Your task to perform on an android device: Search for vegetarian restaurants on Maps Image 0: 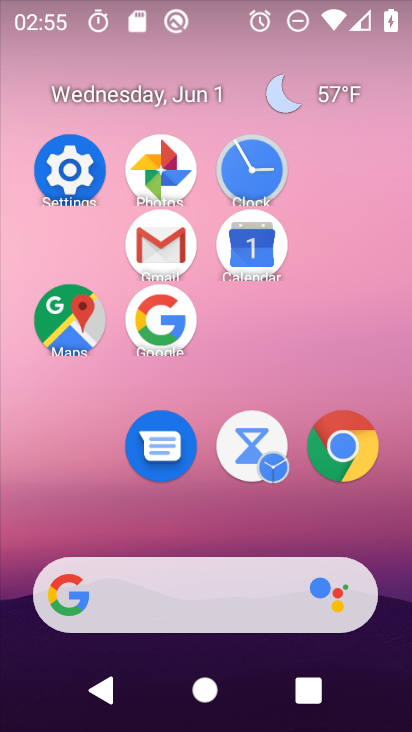
Step 0: click (84, 318)
Your task to perform on an android device: Search for vegetarian restaurants on Maps Image 1: 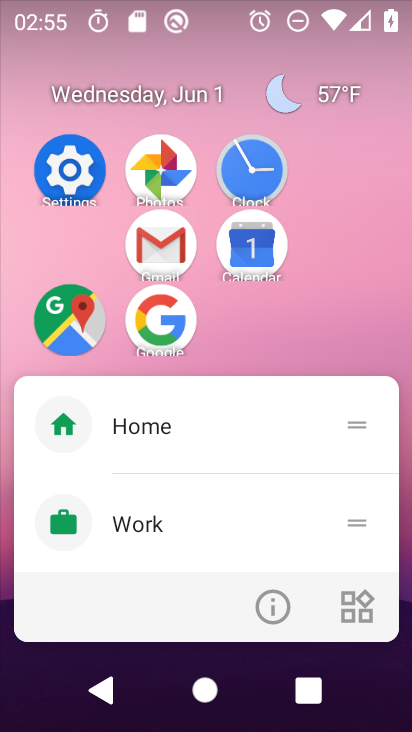
Step 1: click (80, 316)
Your task to perform on an android device: Search for vegetarian restaurants on Maps Image 2: 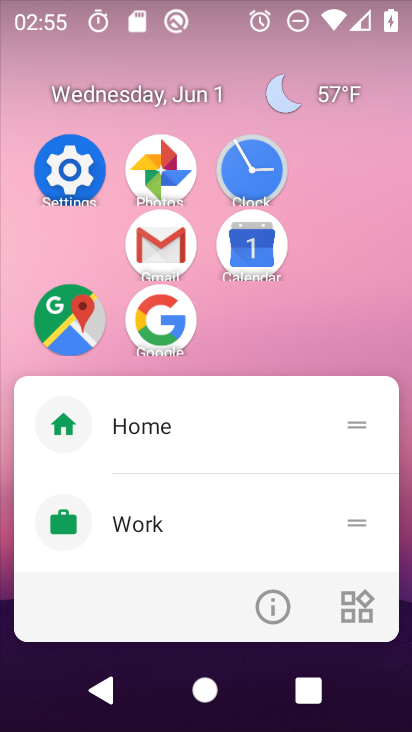
Step 2: click (81, 316)
Your task to perform on an android device: Search for vegetarian restaurants on Maps Image 3: 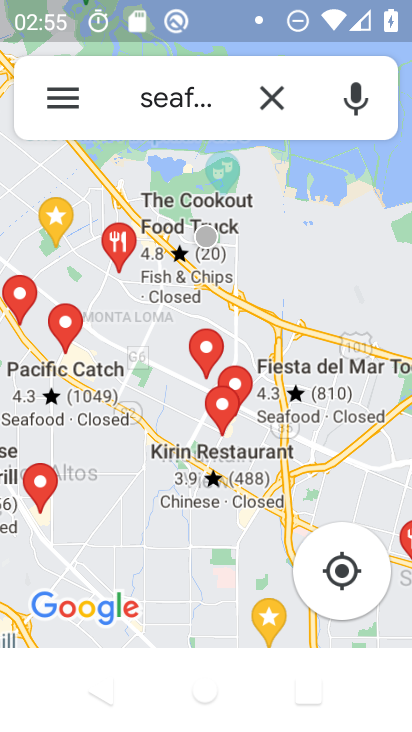
Step 3: click (256, 114)
Your task to perform on an android device: Search for vegetarian restaurants on Maps Image 4: 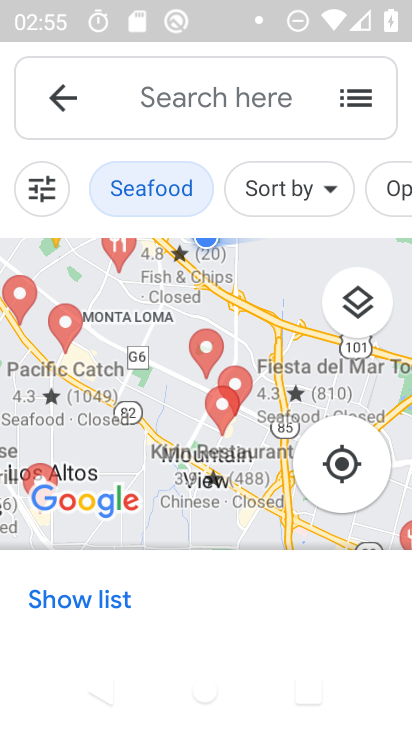
Step 4: click (302, 86)
Your task to perform on an android device: Search for vegetarian restaurants on Maps Image 5: 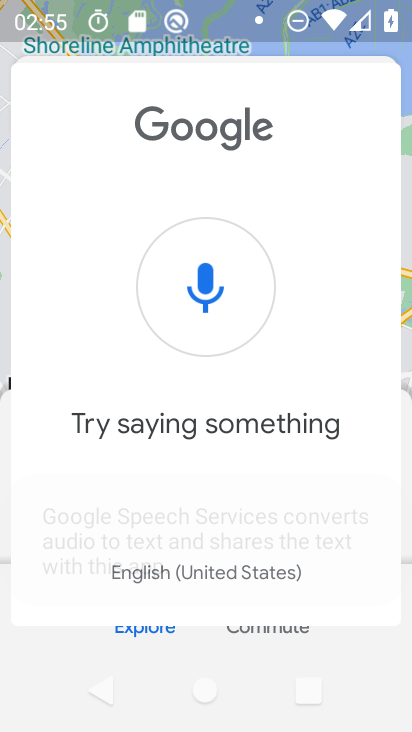
Step 5: click (164, 80)
Your task to perform on an android device: Search for vegetarian restaurants on Maps Image 6: 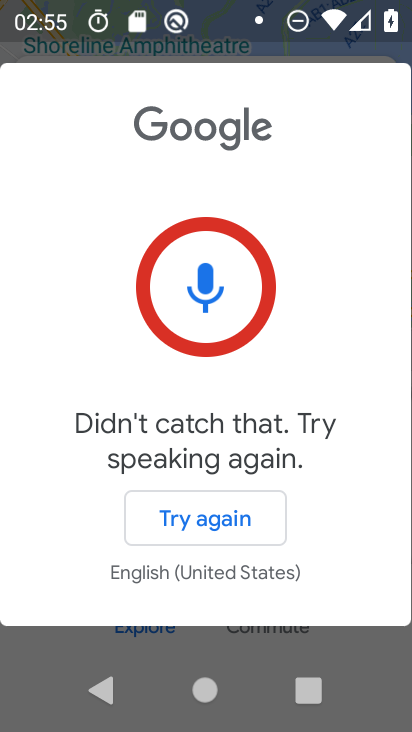
Step 6: press back button
Your task to perform on an android device: Search for vegetarian restaurants on Maps Image 7: 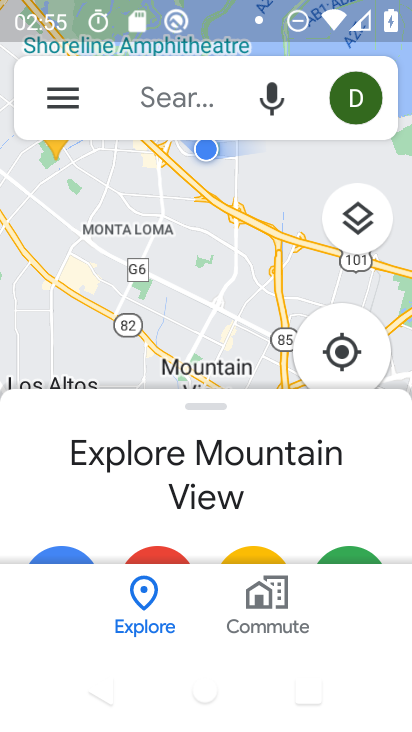
Step 7: click (182, 94)
Your task to perform on an android device: Search for vegetarian restaurants on Maps Image 8: 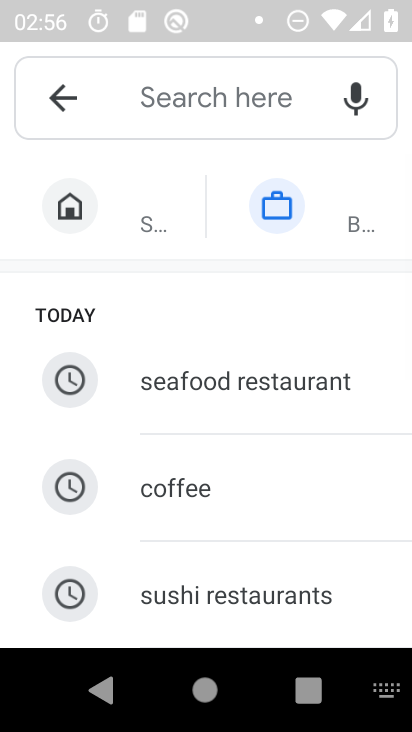
Step 8: drag from (212, 585) to (220, 88)
Your task to perform on an android device: Search for vegetarian restaurants on Maps Image 9: 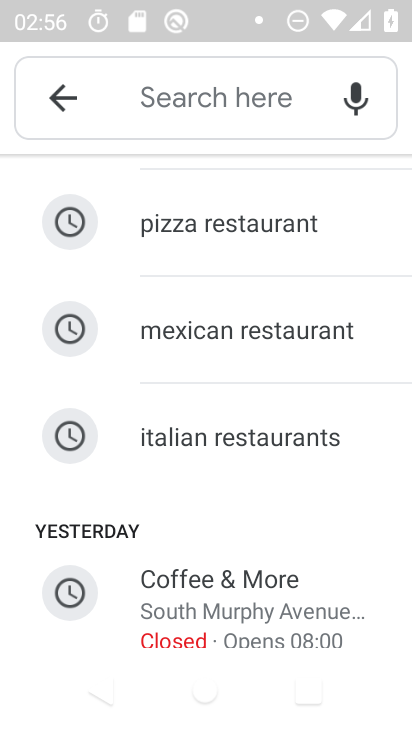
Step 9: drag from (249, 393) to (261, 8)
Your task to perform on an android device: Search for vegetarian restaurants on Maps Image 10: 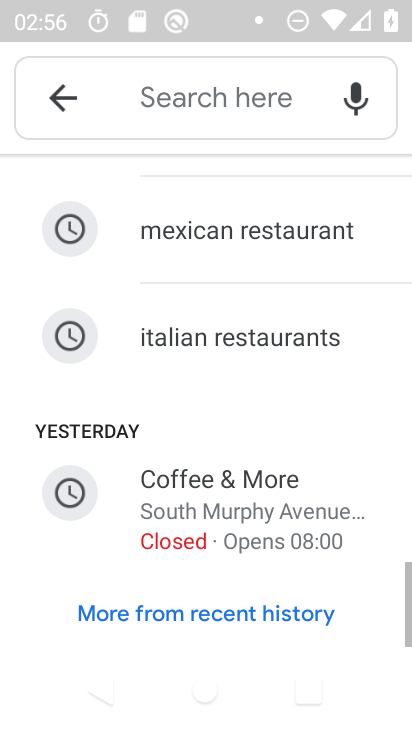
Step 10: click (238, 101)
Your task to perform on an android device: Search for vegetarian restaurants on Maps Image 11: 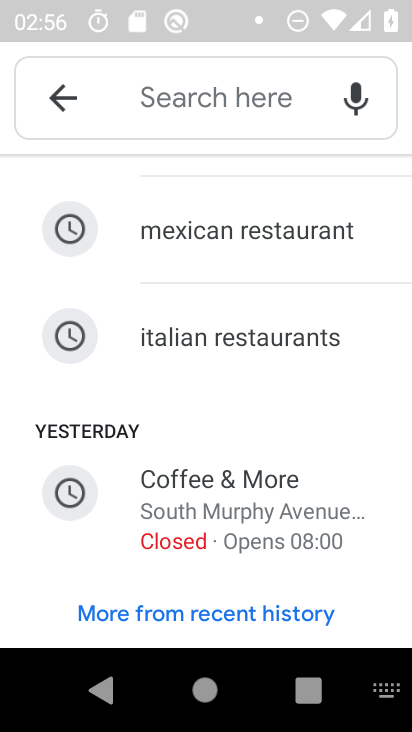
Step 11: type "vegetarian restaurants"
Your task to perform on an android device: Search for vegetarian restaurants on Maps Image 12: 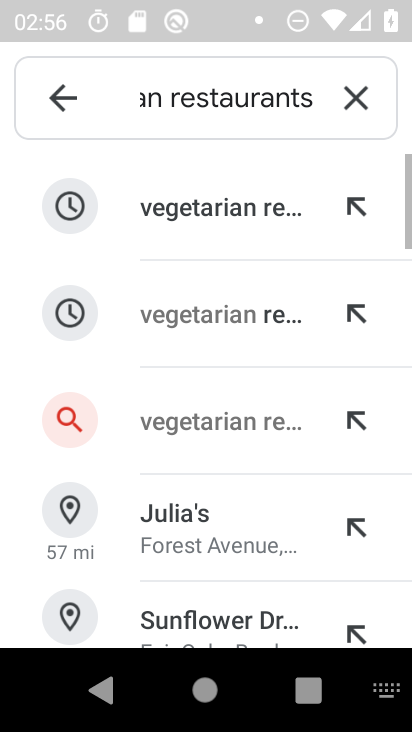
Step 12: click (217, 205)
Your task to perform on an android device: Search for vegetarian restaurants on Maps Image 13: 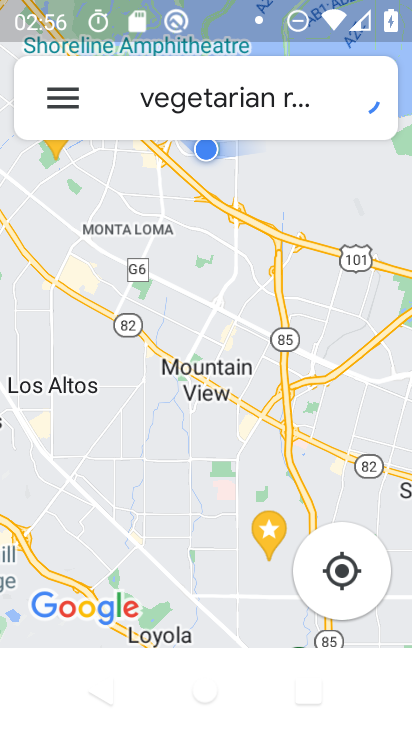
Step 13: task complete